Your task to perform on an android device: allow cookies in the chrome app Image 0: 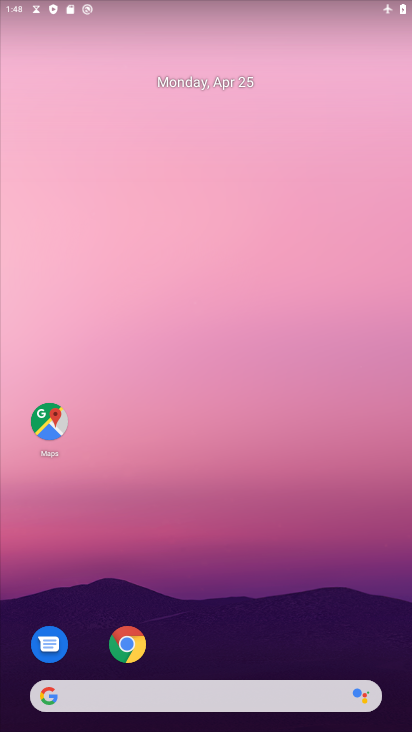
Step 0: click (127, 647)
Your task to perform on an android device: allow cookies in the chrome app Image 1: 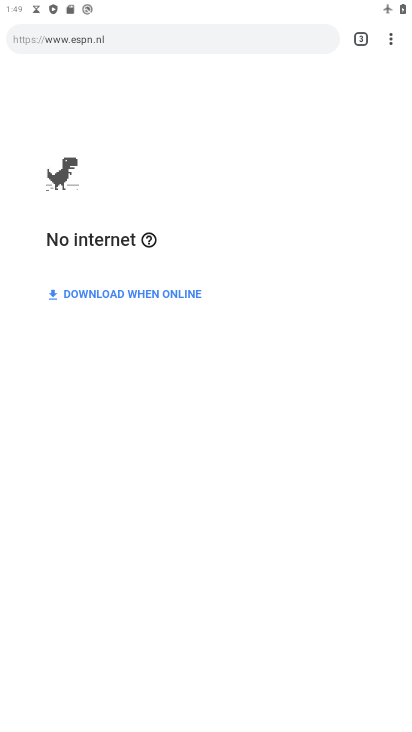
Step 1: click (390, 36)
Your task to perform on an android device: allow cookies in the chrome app Image 2: 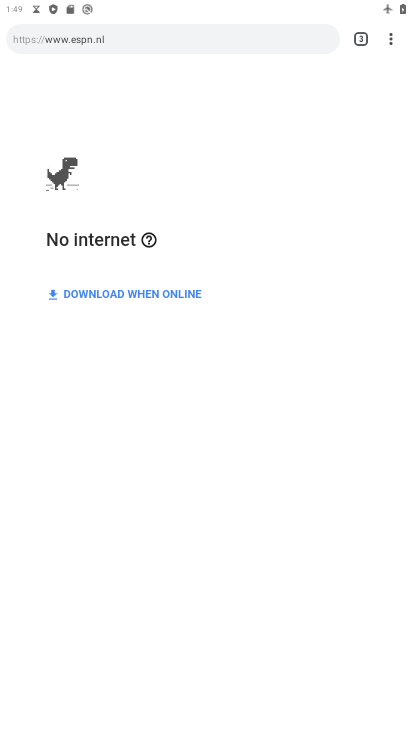
Step 2: drag from (390, 36) to (241, 484)
Your task to perform on an android device: allow cookies in the chrome app Image 3: 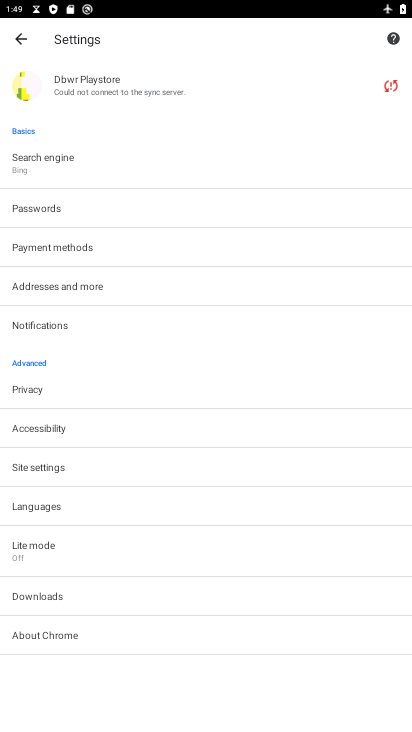
Step 3: click (56, 468)
Your task to perform on an android device: allow cookies in the chrome app Image 4: 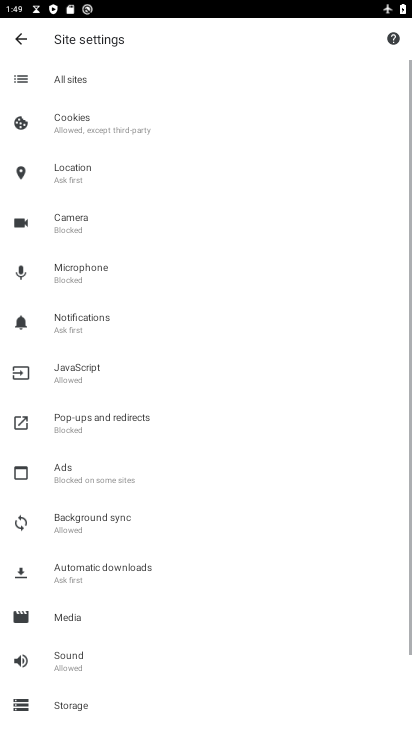
Step 4: click (84, 122)
Your task to perform on an android device: allow cookies in the chrome app Image 5: 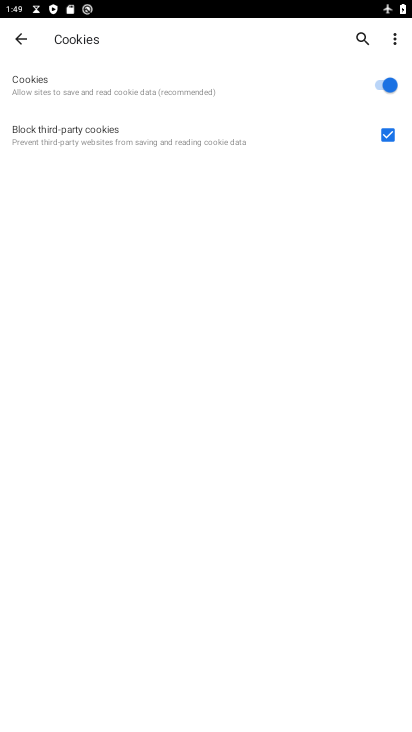
Step 5: task complete